Your task to perform on an android device: Go to location settings Image 0: 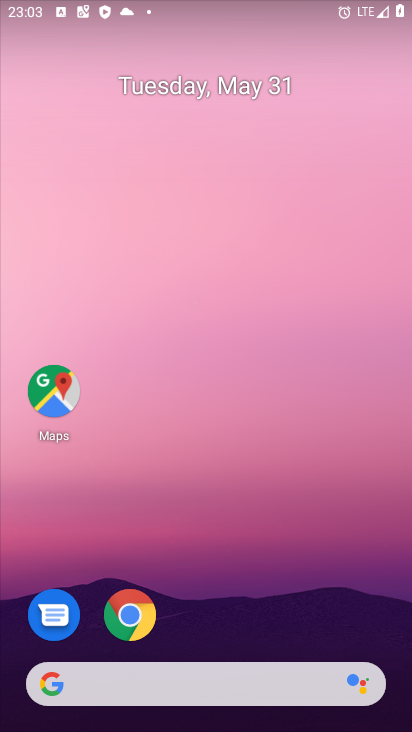
Step 0: drag from (386, 612) to (347, 47)
Your task to perform on an android device: Go to location settings Image 1: 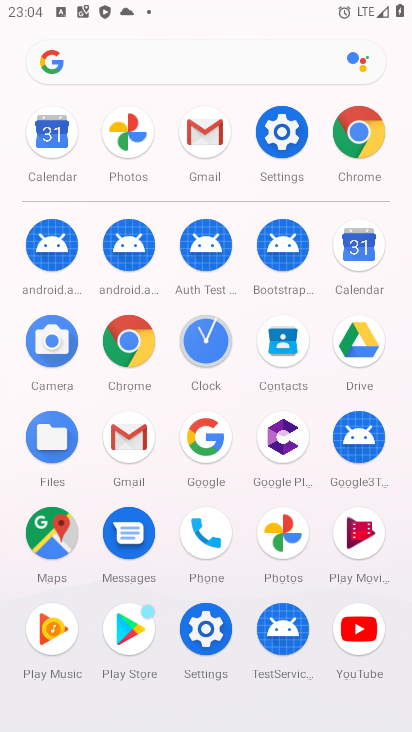
Step 1: click (204, 628)
Your task to perform on an android device: Go to location settings Image 2: 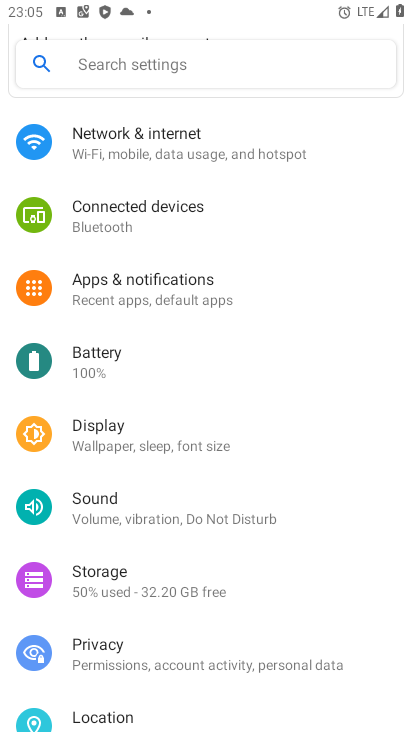
Step 2: drag from (204, 628) to (254, 327)
Your task to perform on an android device: Go to location settings Image 3: 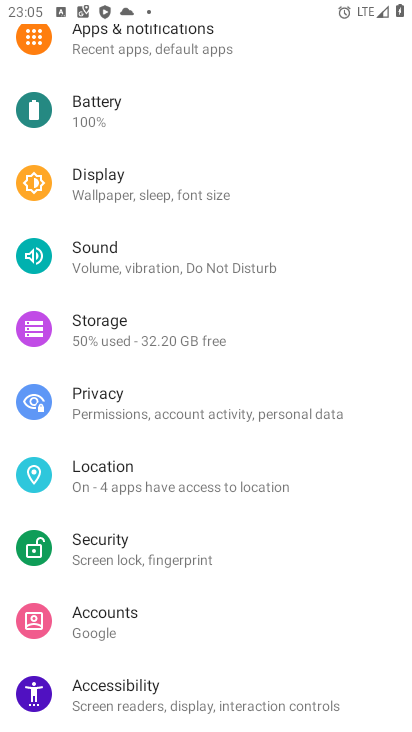
Step 3: click (127, 468)
Your task to perform on an android device: Go to location settings Image 4: 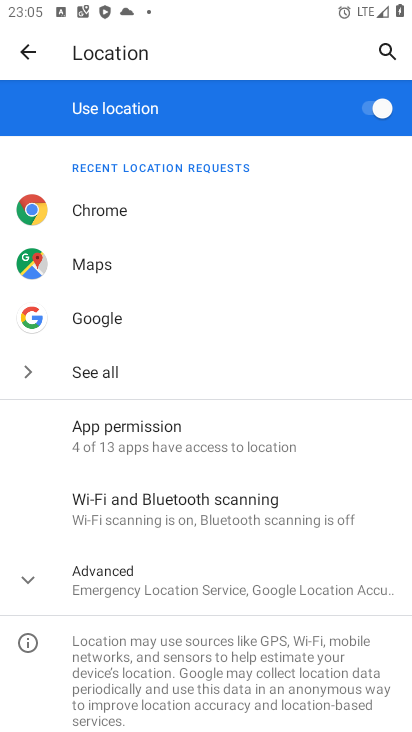
Step 4: click (29, 571)
Your task to perform on an android device: Go to location settings Image 5: 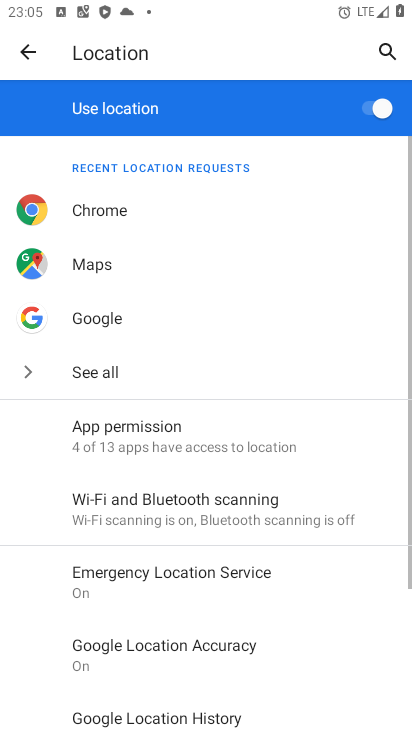
Step 5: task complete